Your task to perform on an android device: Check the weather Image 0: 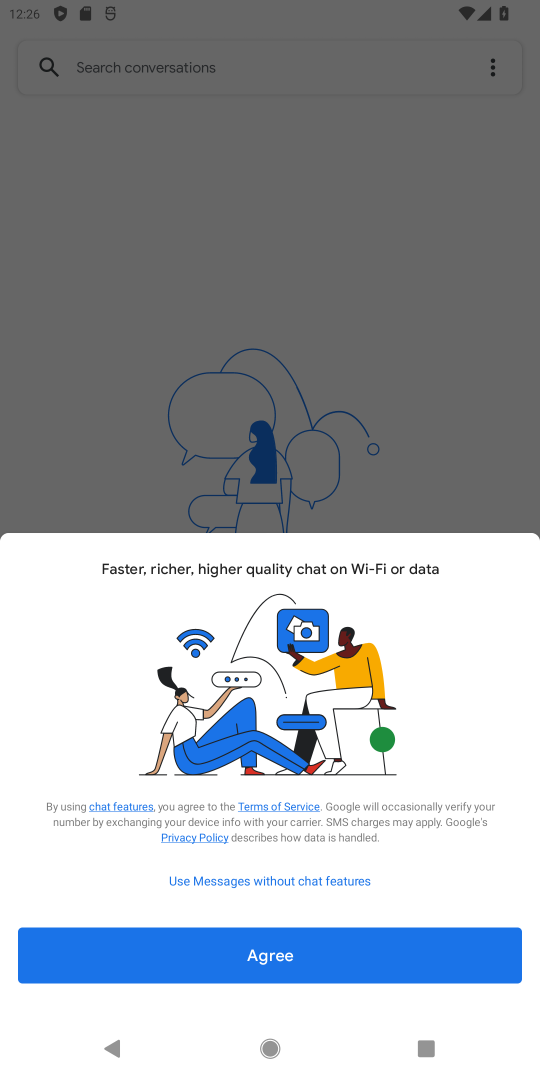
Step 0: drag from (290, 688) to (241, 377)
Your task to perform on an android device: Check the weather Image 1: 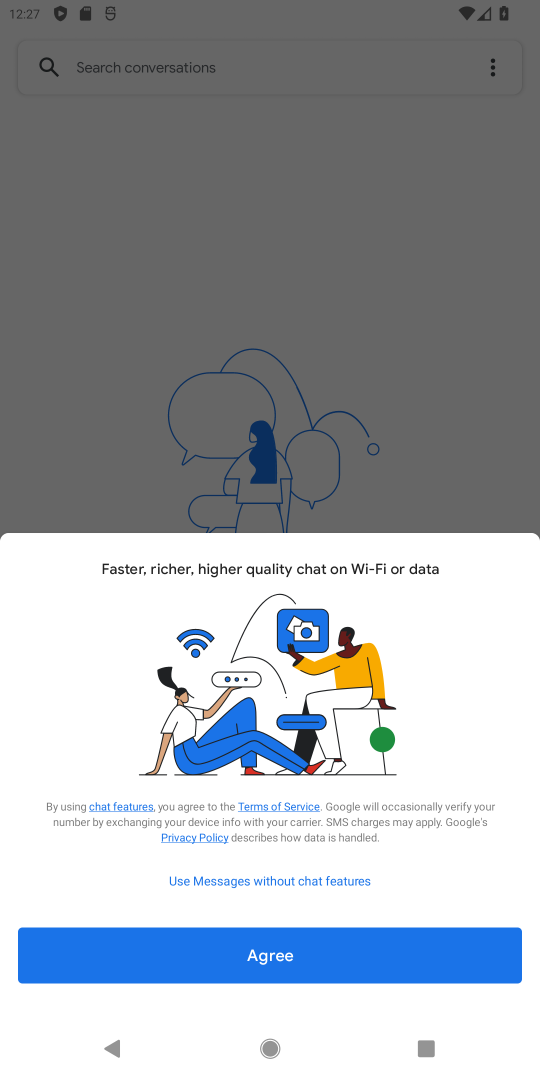
Step 1: press home button
Your task to perform on an android device: Check the weather Image 2: 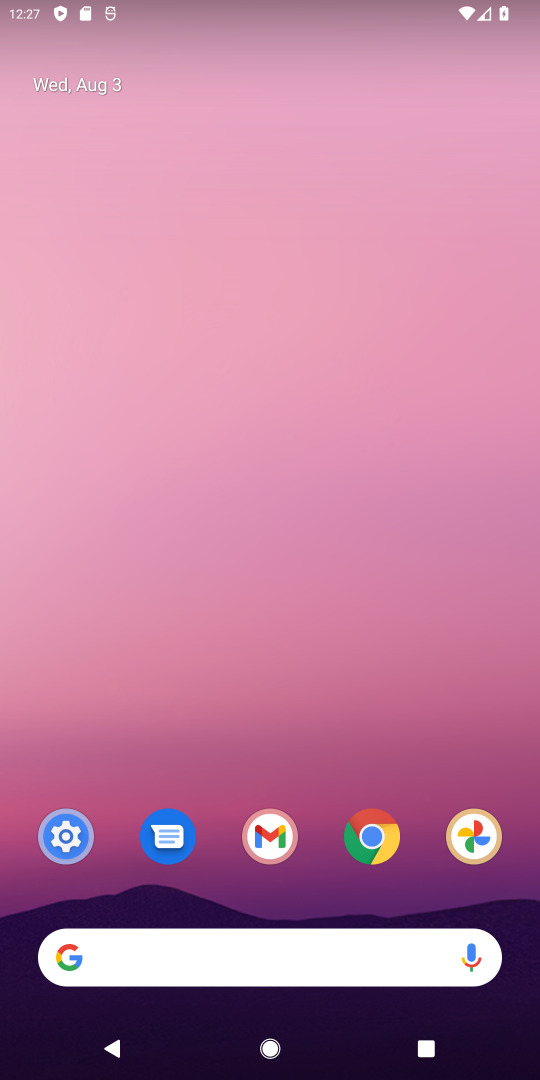
Step 2: click (194, 952)
Your task to perform on an android device: Check the weather Image 3: 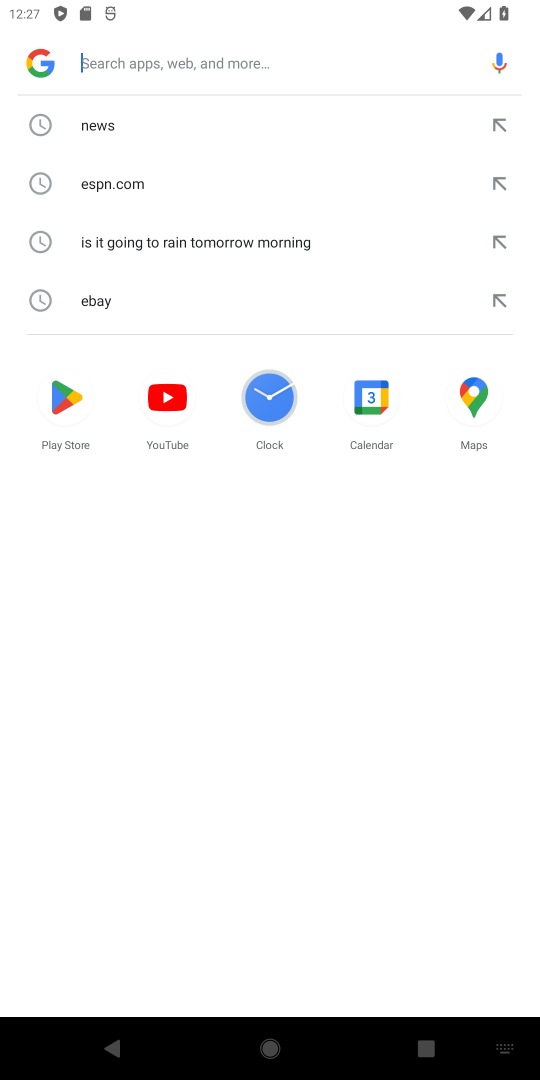
Step 3: type "weather"
Your task to perform on an android device: Check the weather Image 4: 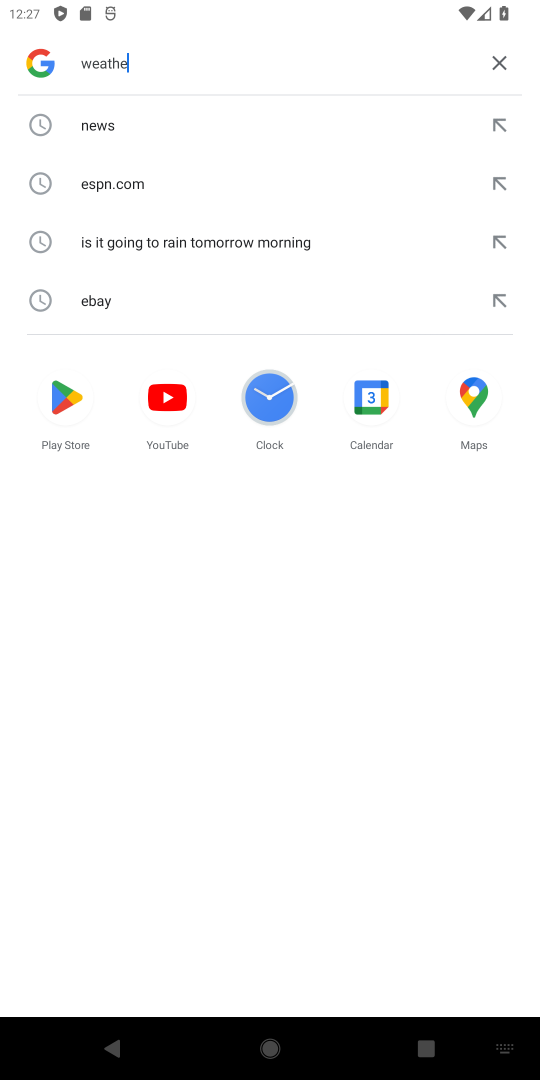
Step 4: type ""
Your task to perform on an android device: Check the weather Image 5: 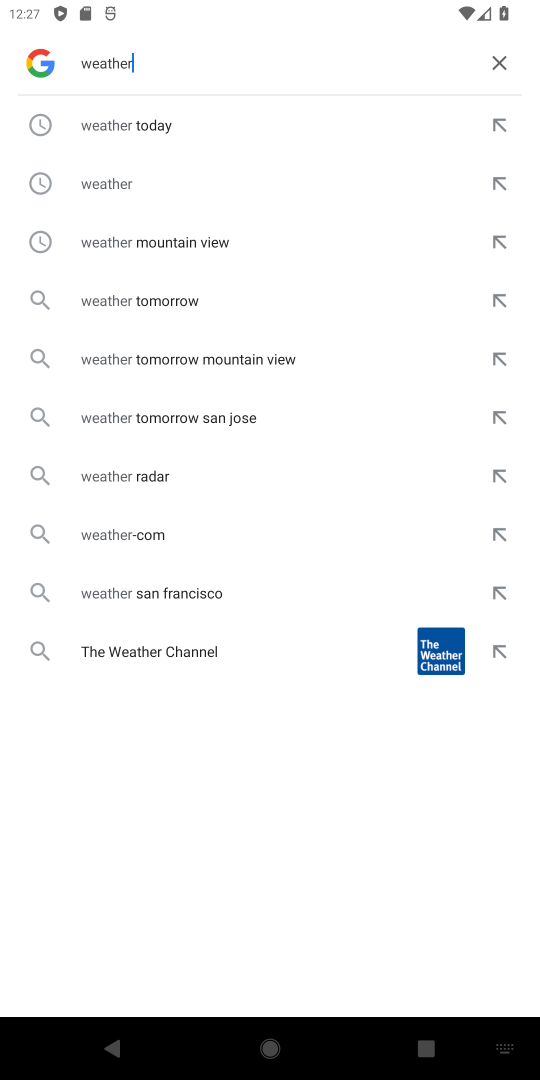
Step 5: click (122, 179)
Your task to perform on an android device: Check the weather Image 6: 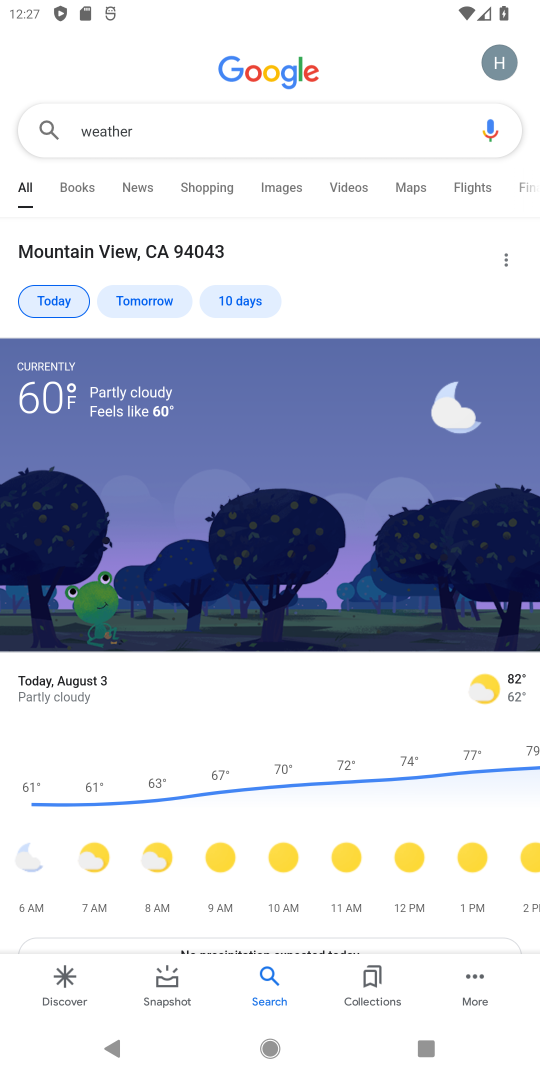
Step 6: task complete